Your task to perform on an android device: Open eBay Image 0: 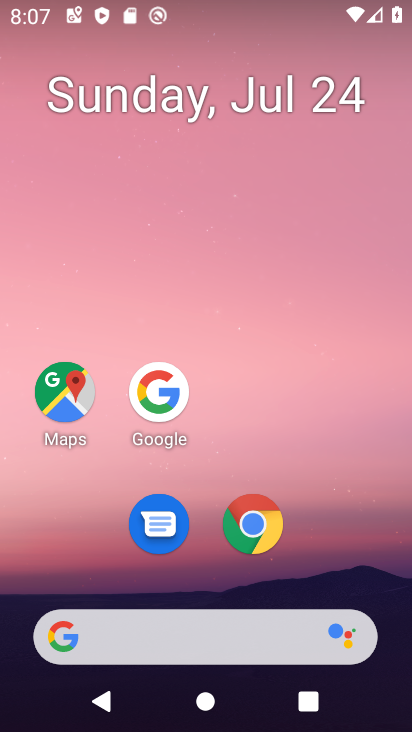
Step 0: press home button
Your task to perform on an android device: Open eBay Image 1: 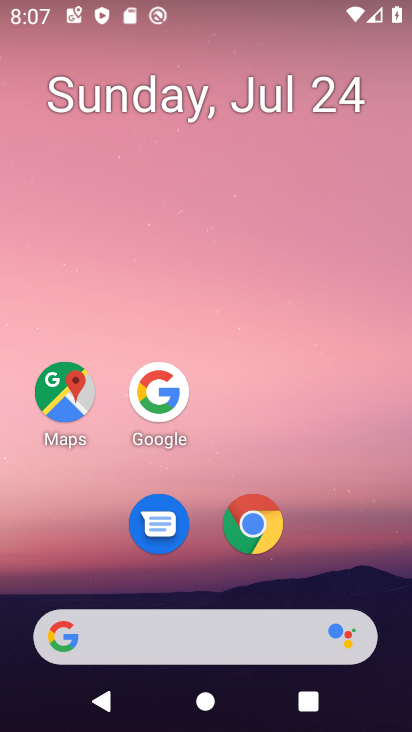
Step 1: click (256, 524)
Your task to perform on an android device: Open eBay Image 2: 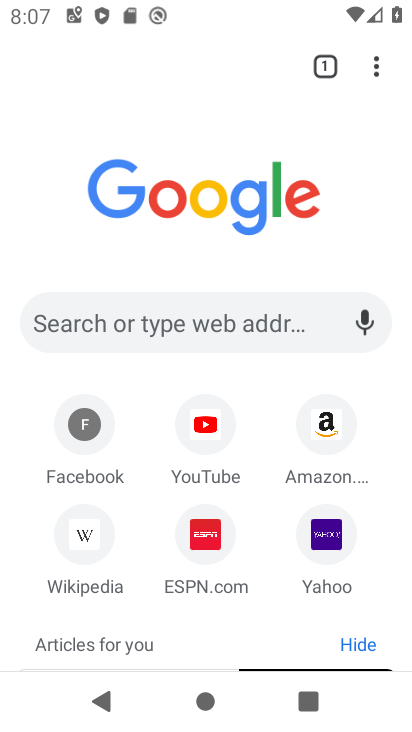
Step 2: drag from (270, 581) to (366, 289)
Your task to perform on an android device: Open eBay Image 3: 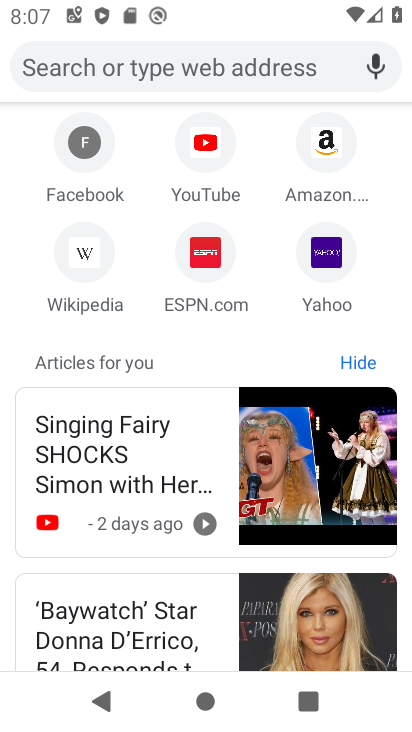
Step 3: drag from (285, 208) to (219, 606)
Your task to perform on an android device: Open eBay Image 4: 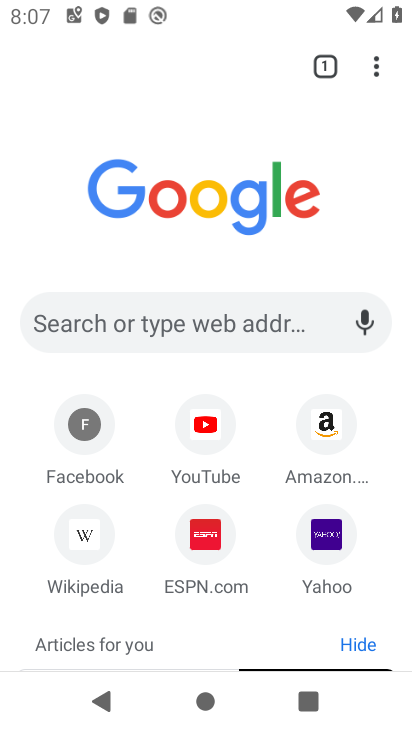
Step 4: click (149, 326)
Your task to perform on an android device: Open eBay Image 5: 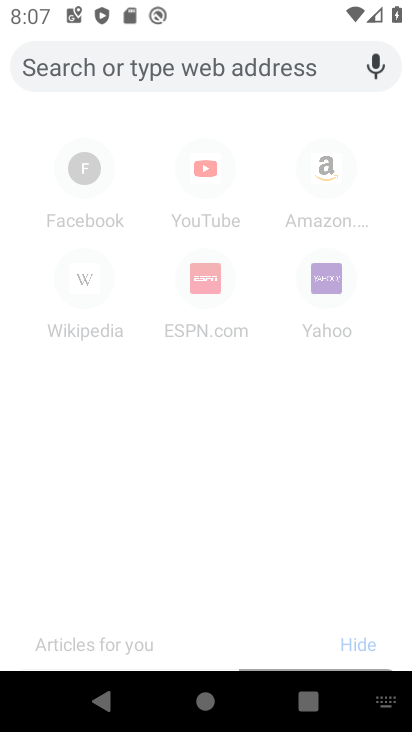
Step 5: type "ebay"
Your task to perform on an android device: Open eBay Image 6: 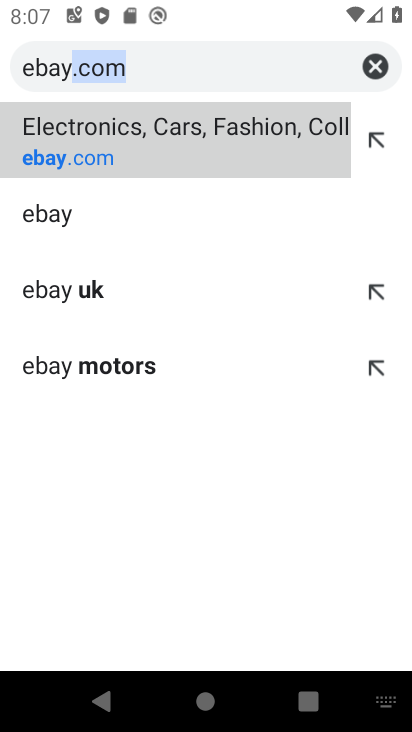
Step 6: click (187, 135)
Your task to perform on an android device: Open eBay Image 7: 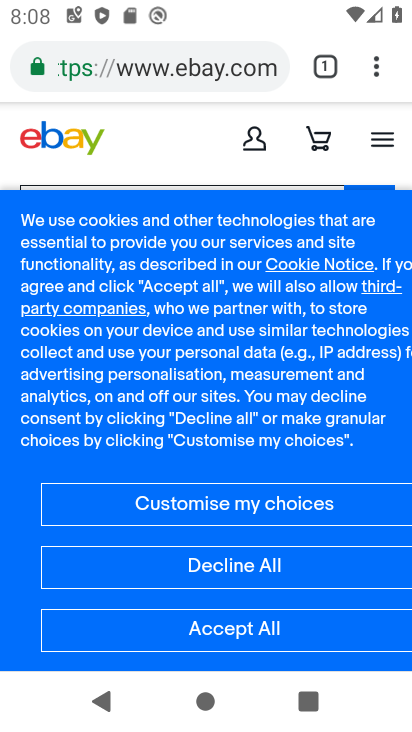
Step 7: click (222, 633)
Your task to perform on an android device: Open eBay Image 8: 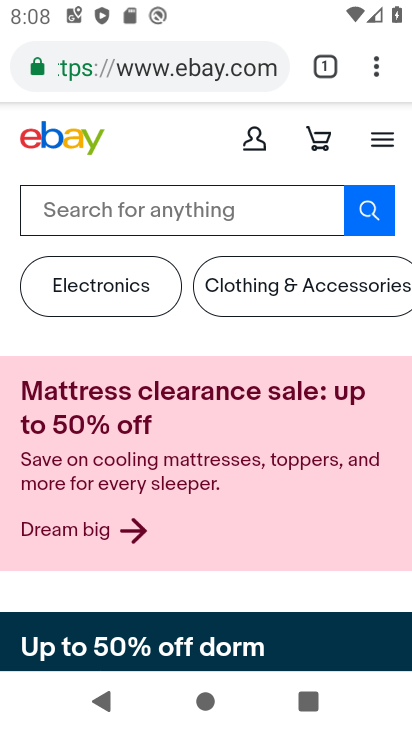
Step 8: task complete